Your task to perform on an android device: What is the recent news? Image 0: 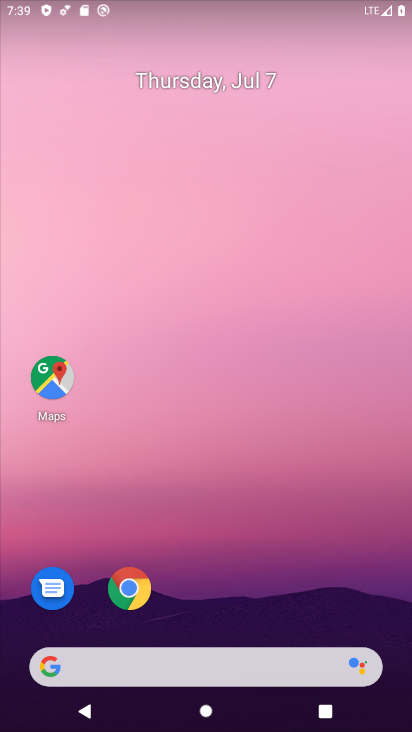
Step 0: drag from (312, 577) to (312, 285)
Your task to perform on an android device: What is the recent news? Image 1: 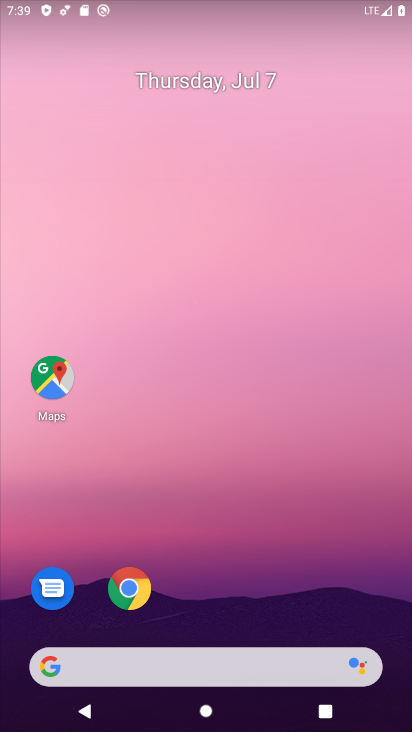
Step 1: drag from (229, 620) to (231, 167)
Your task to perform on an android device: What is the recent news? Image 2: 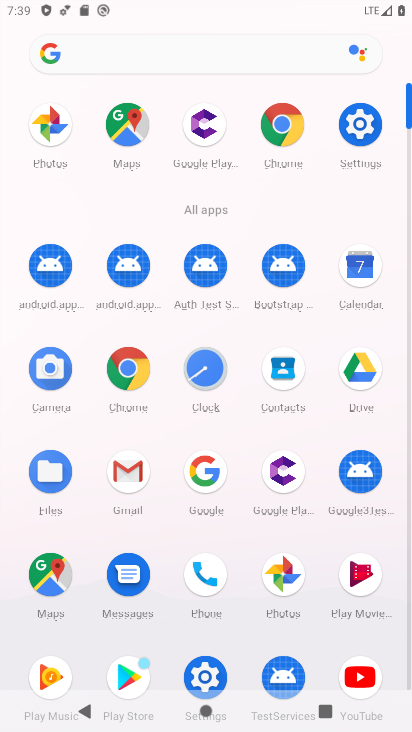
Step 2: click (116, 369)
Your task to perform on an android device: What is the recent news? Image 3: 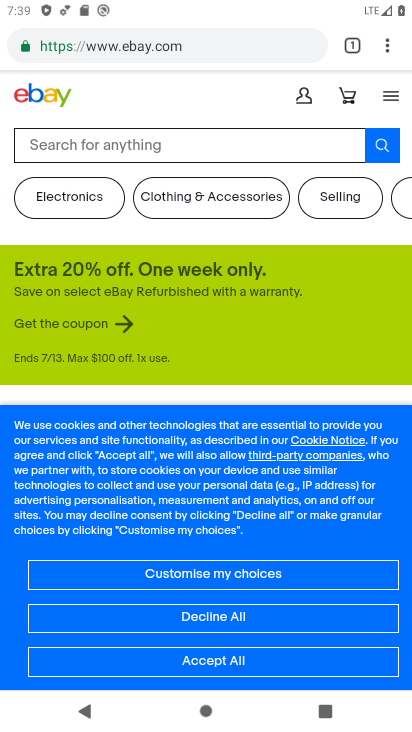
Step 3: click (393, 44)
Your task to perform on an android device: What is the recent news? Image 4: 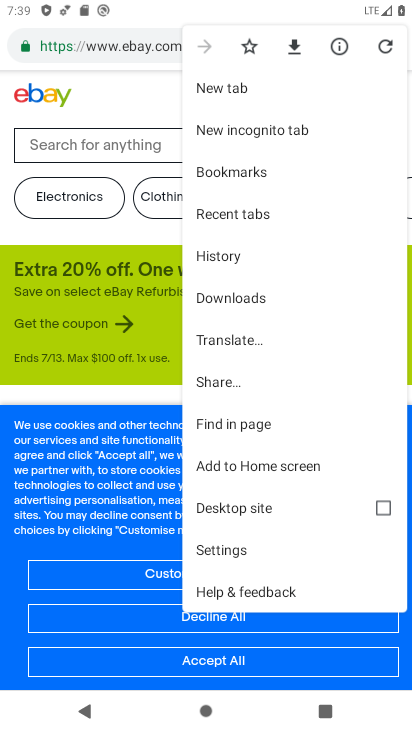
Step 4: click (197, 76)
Your task to perform on an android device: What is the recent news? Image 5: 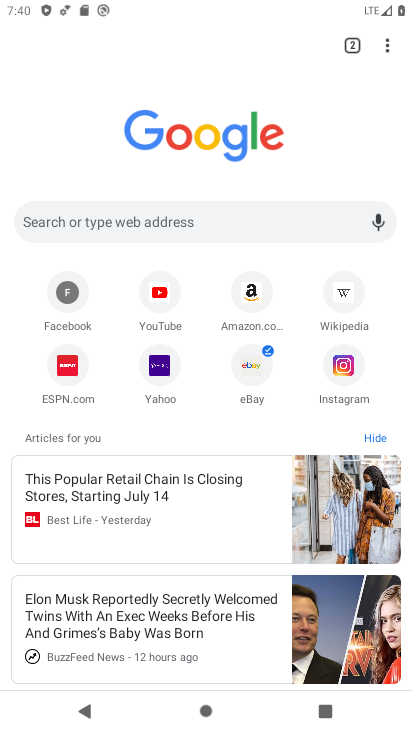
Step 5: click (184, 204)
Your task to perform on an android device: What is the recent news? Image 6: 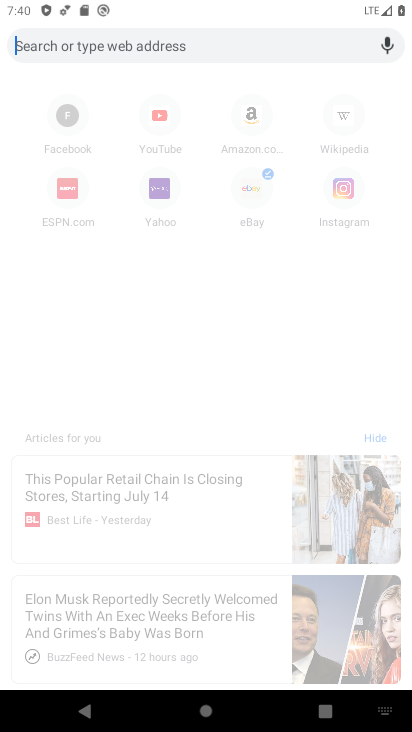
Step 6: type "What is the recent news? "
Your task to perform on an android device: What is the recent news? Image 7: 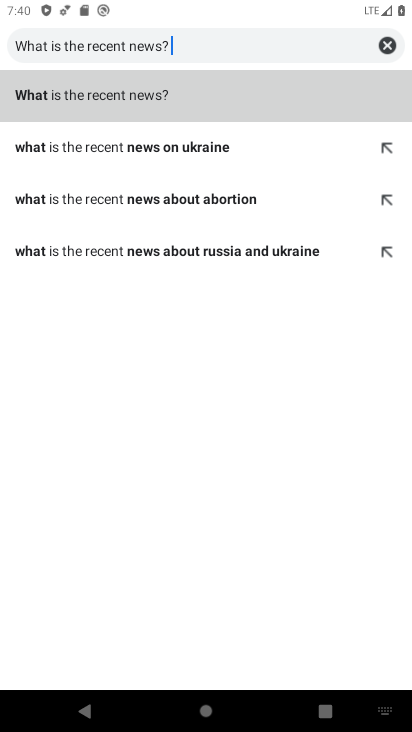
Step 7: click (67, 96)
Your task to perform on an android device: What is the recent news? Image 8: 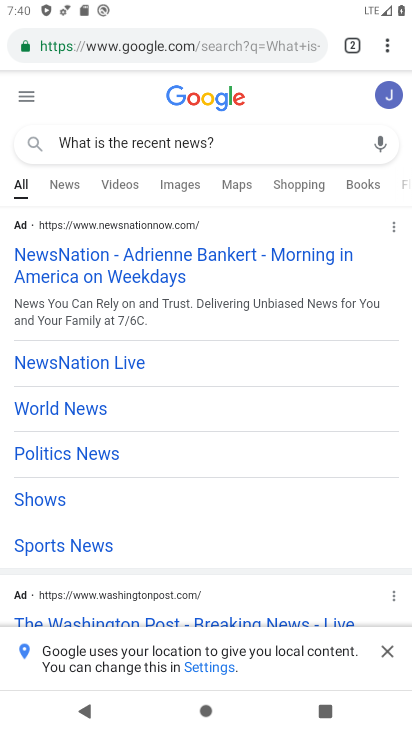
Step 8: task complete